Your task to perform on an android device: empty trash in google photos Image 0: 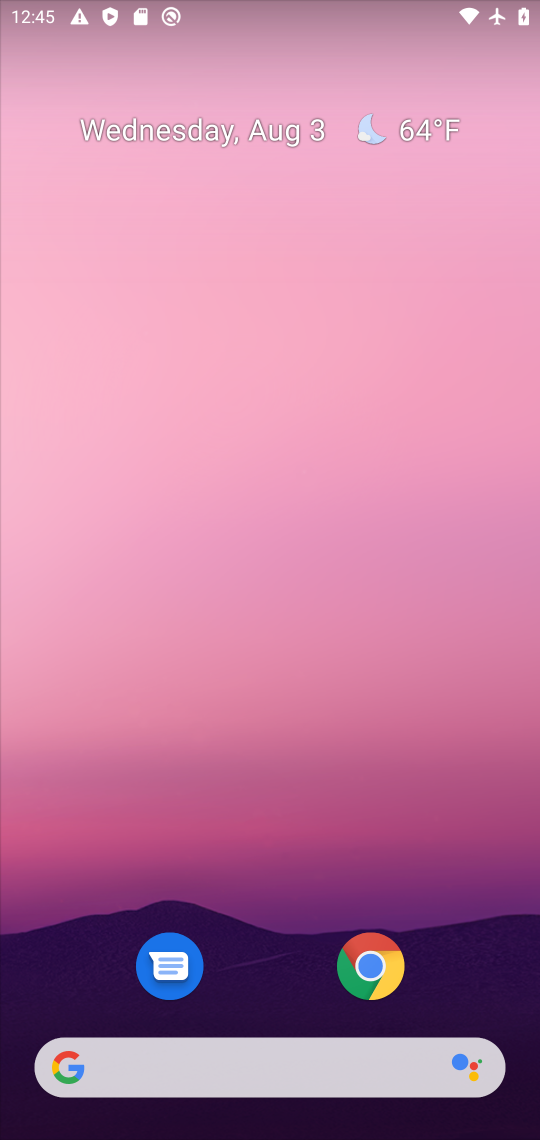
Step 0: drag from (279, 976) to (245, 358)
Your task to perform on an android device: empty trash in google photos Image 1: 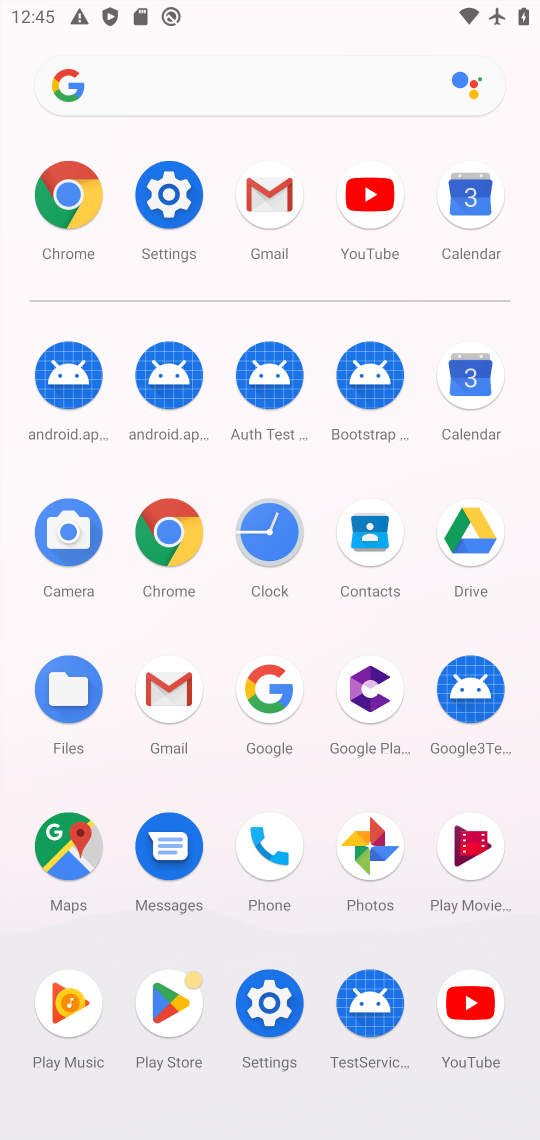
Step 1: click (339, 853)
Your task to perform on an android device: empty trash in google photos Image 2: 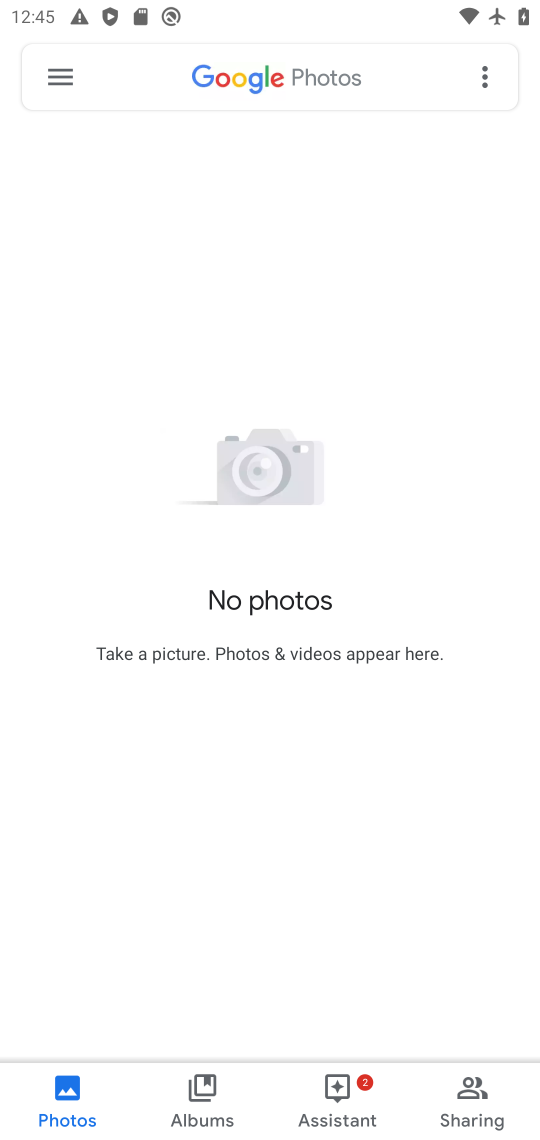
Step 2: click (59, 83)
Your task to perform on an android device: empty trash in google photos Image 3: 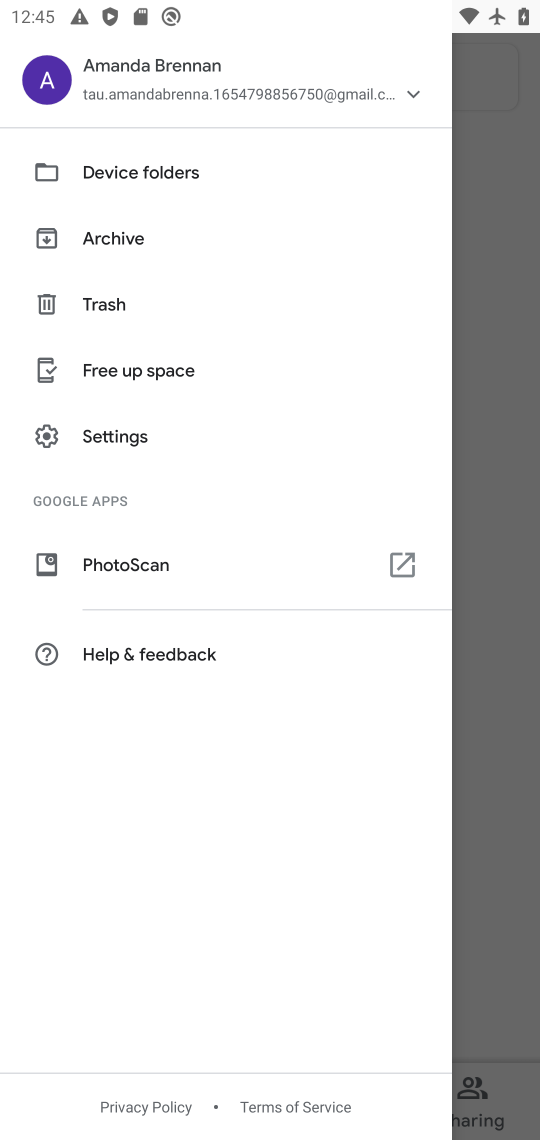
Step 3: click (95, 308)
Your task to perform on an android device: empty trash in google photos Image 4: 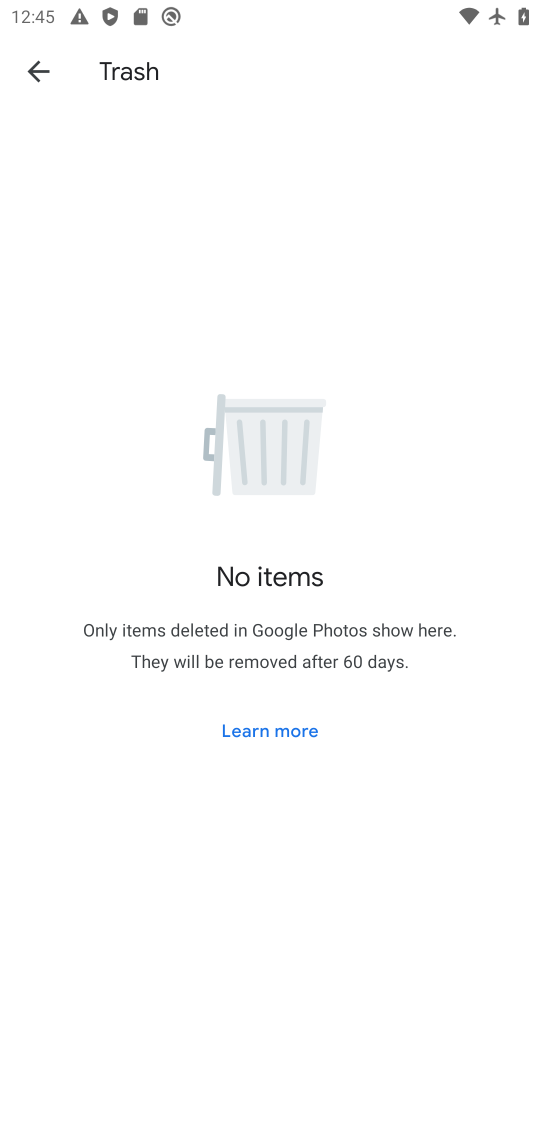
Step 4: task complete